Your task to perform on an android device: visit the assistant section in the google photos Image 0: 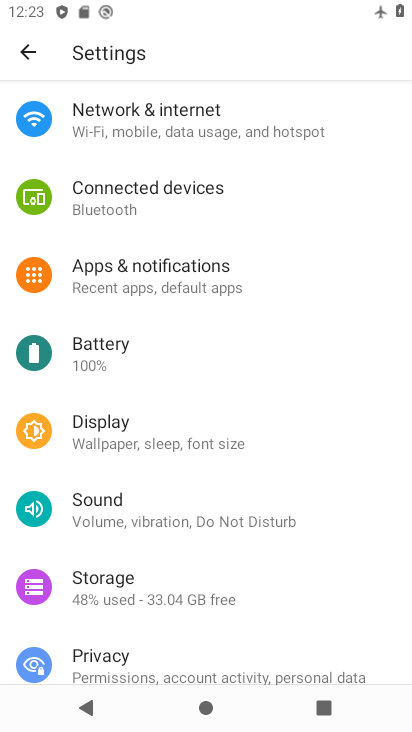
Step 0: press home button
Your task to perform on an android device: visit the assistant section in the google photos Image 1: 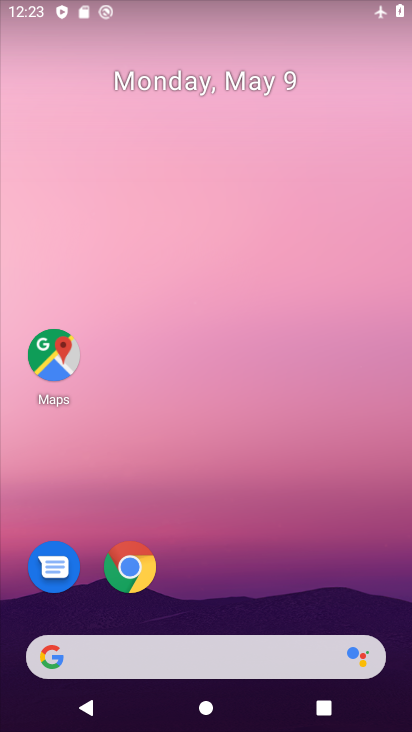
Step 1: drag from (250, 595) to (325, 15)
Your task to perform on an android device: visit the assistant section in the google photos Image 2: 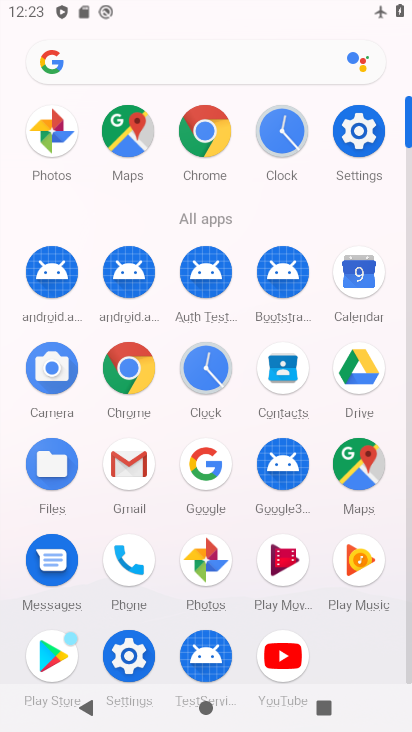
Step 2: click (213, 573)
Your task to perform on an android device: visit the assistant section in the google photos Image 3: 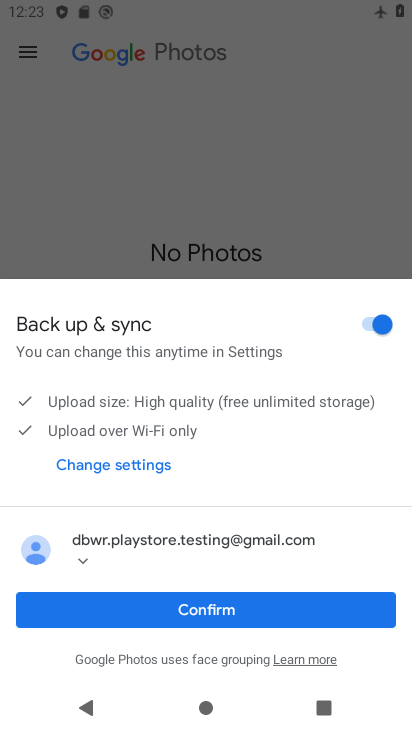
Step 3: click (215, 609)
Your task to perform on an android device: visit the assistant section in the google photos Image 4: 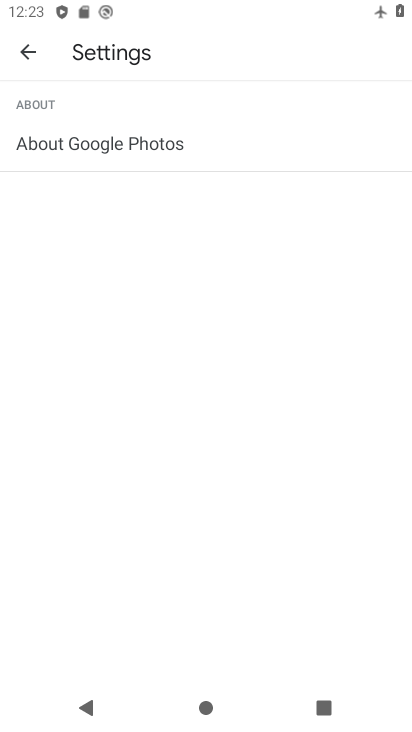
Step 4: click (32, 49)
Your task to perform on an android device: visit the assistant section in the google photos Image 5: 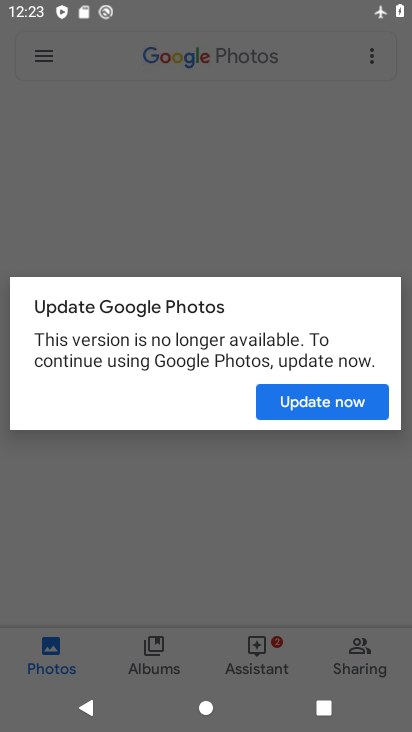
Step 5: click (295, 415)
Your task to perform on an android device: visit the assistant section in the google photos Image 6: 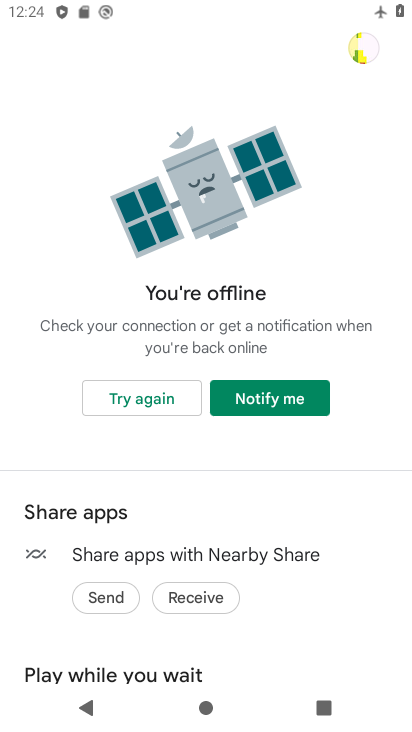
Step 6: click (100, 713)
Your task to perform on an android device: visit the assistant section in the google photos Image 7: 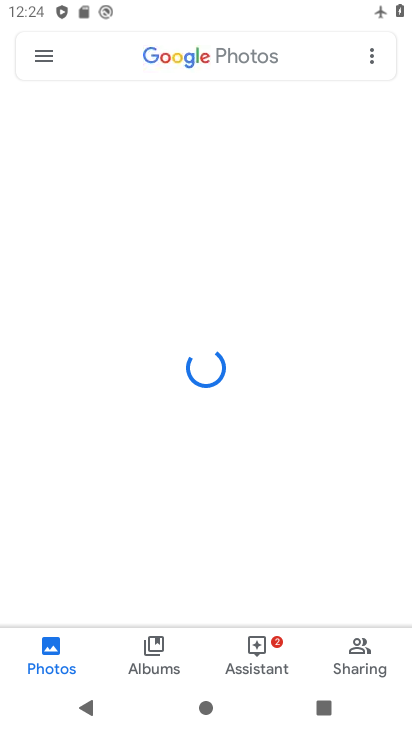
Step 7: click (263, 648)
Your task to perform on an android device: visit the assistant section in the google photos Image 8: 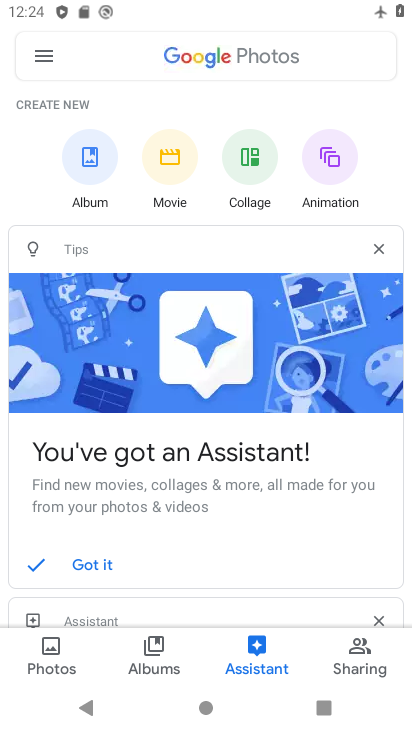
Step 8: task complete